Your task to perform on an android device: Go to settings Image 0: 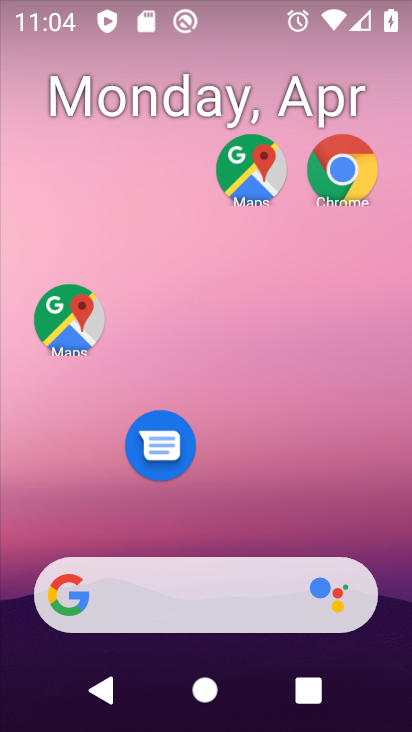
Step 0: drag from (267, 445) to (282, 50)
Your task to perform on an android device: Go to settings Image 1: 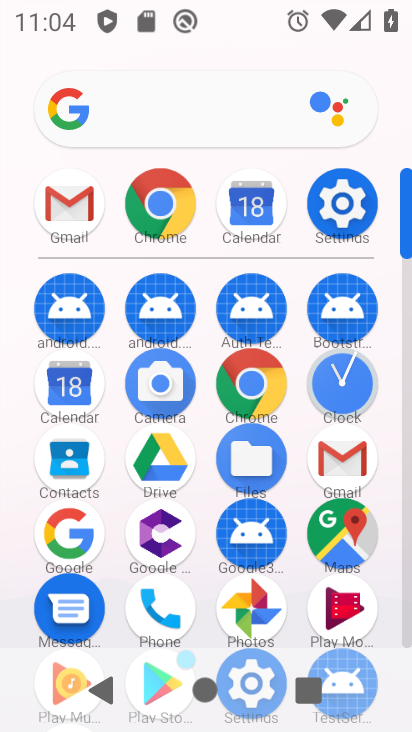
Step 1: click (336, 207)
Your task to perform on an android device: Go to settings Image 2: 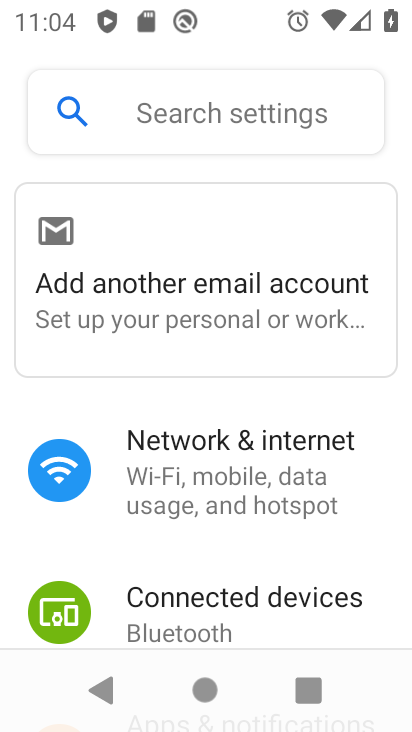
Step 2: task complete